Your task to perform on an android device: toggle improve location accuracy Image 0: 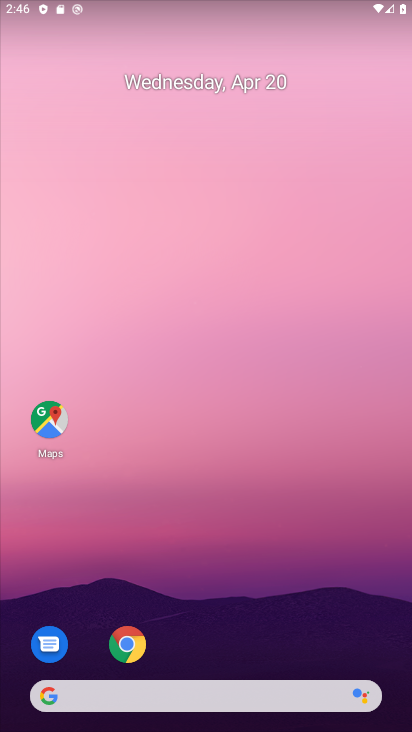
Step 0: drag from (217, 582) to (251, 125)
Your task to perform on an android device: toggle improve location accuracy Image 1: 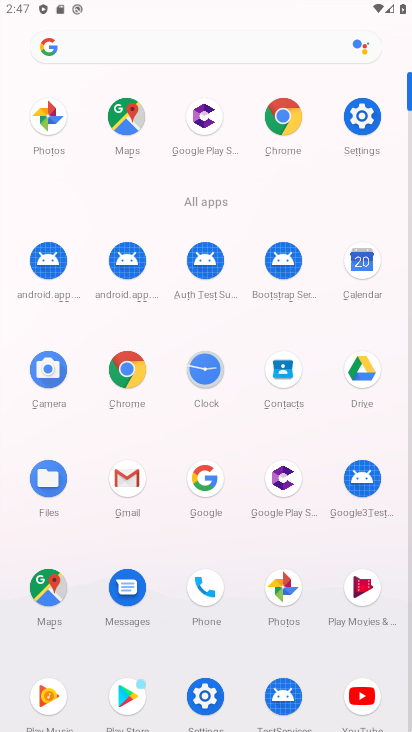
Step 1: click (205, 707)
Your task to perform on an android device: toggle improve location accuracy Image 2: 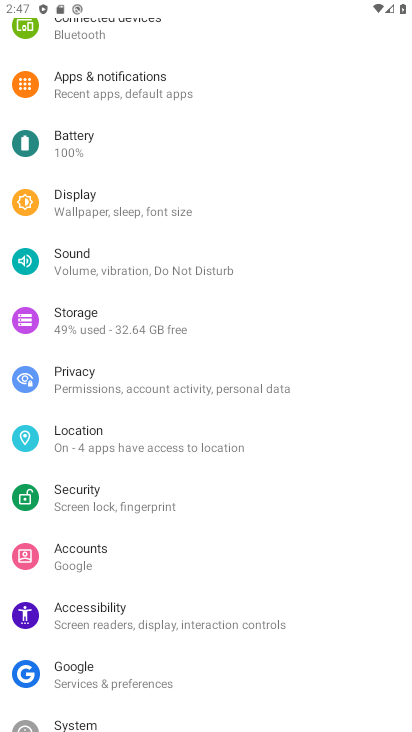
Step 2: click (116, 436)
Your task to perform on an android device: toggle improve location accuracy Image 3: 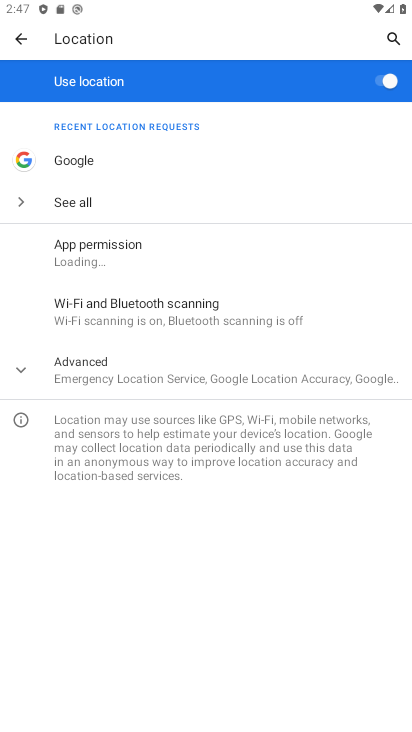
Step 3: click (106, 368)
Your task to perform on an android device: toggle improve location accuracy Image 4: 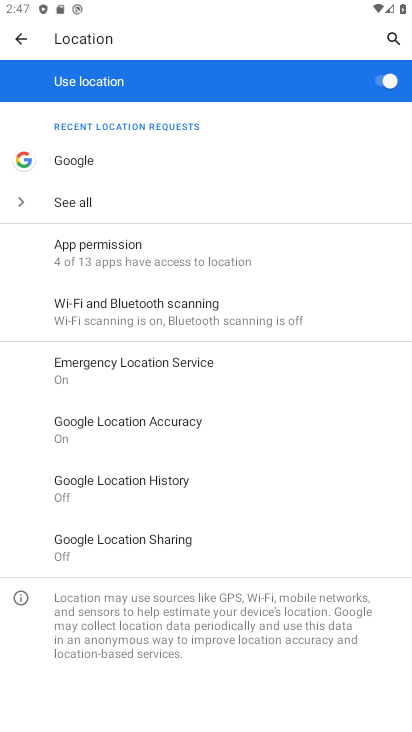
Step 4: click (158, 435)
Your task to perform on an android device: toggle improve location accuracy Image 5: 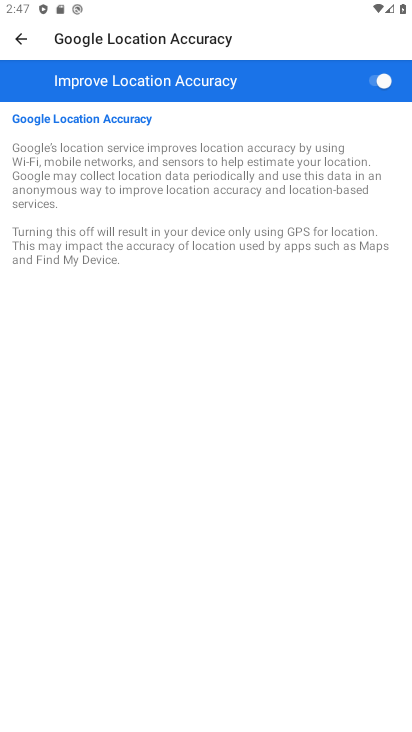
Step 5: task complete